Your task to perform on an android device: check out phone information Image 0: 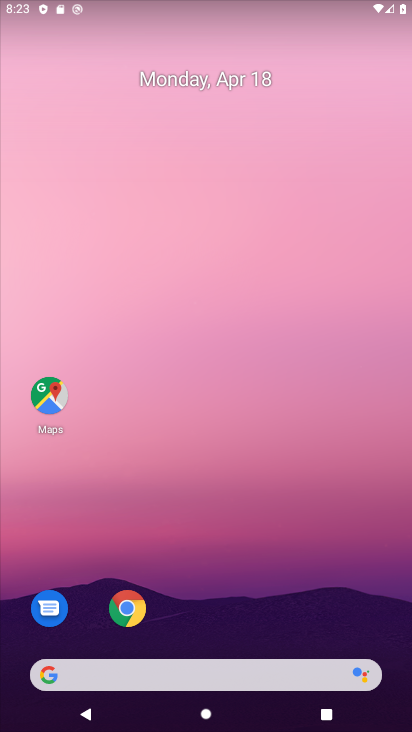
Step 0: drag from (189, 612) to (207, 189)
Your task to perform on an android device: check out phone information Image 1: 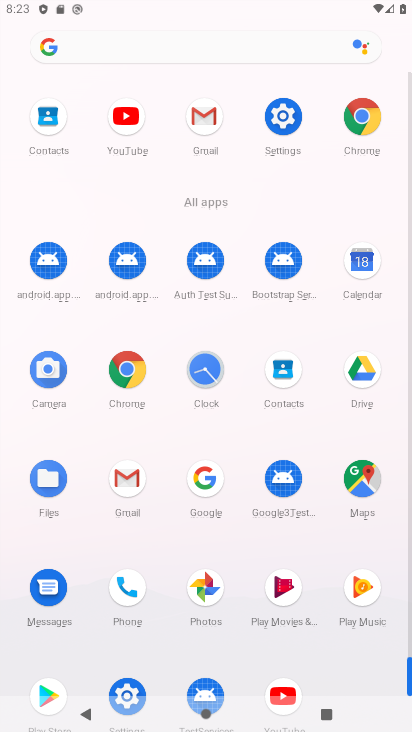
Step 1: click (281, 116)
Your task to perform on an android device: check out phone information Image 2: 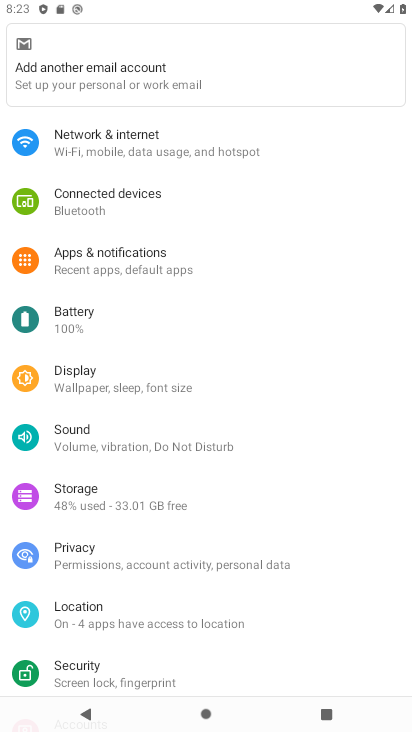
Step 2: drag from (118, 637) to (155, 506)
Your task to perform on an android device: check out phone information Image 3: 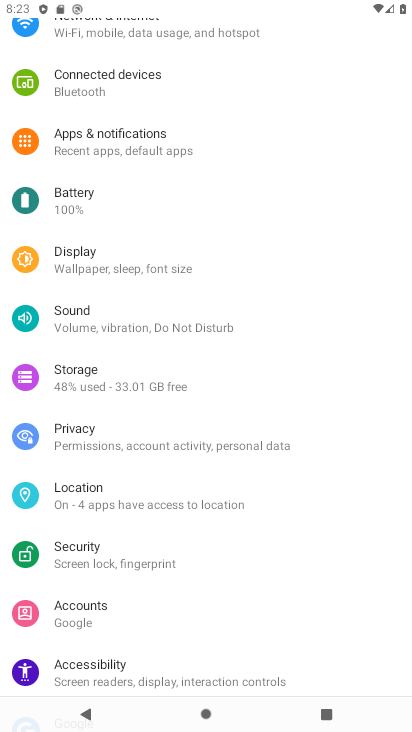
Step 3: drag from (153, 593) to (179, 492)
Your task to perform on an android device: check out phone information Image 4: 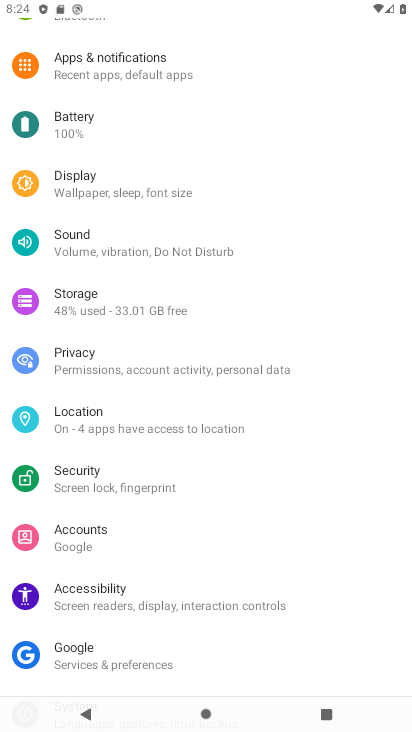
Step 4: drag from (134, 622) to (187, 519)
Your task to perform on an android device: check out phone information Image 5: 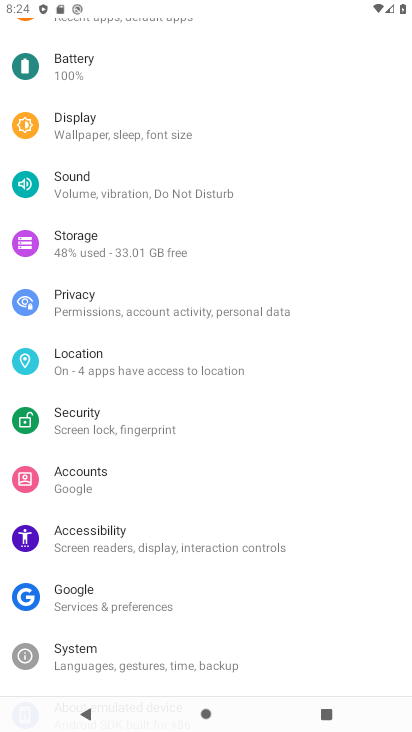
Step 5: drag from (140, 634) to (209, 540)
Your task to perform on an android device: check out phone information Image 6: 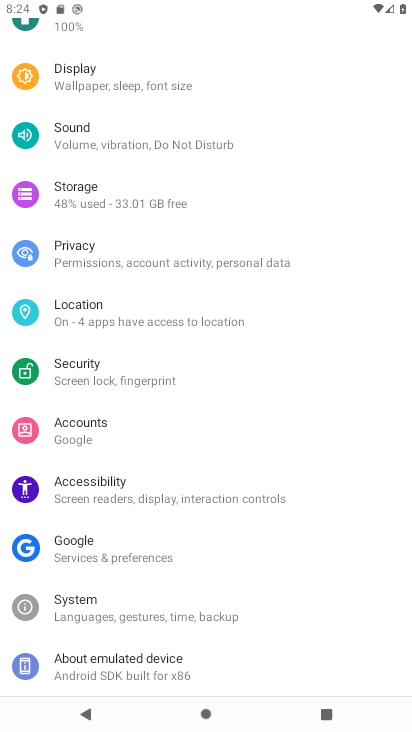
Step 6: click (135, 663)
Your task to perform on an android device: check out phone information Image 7: 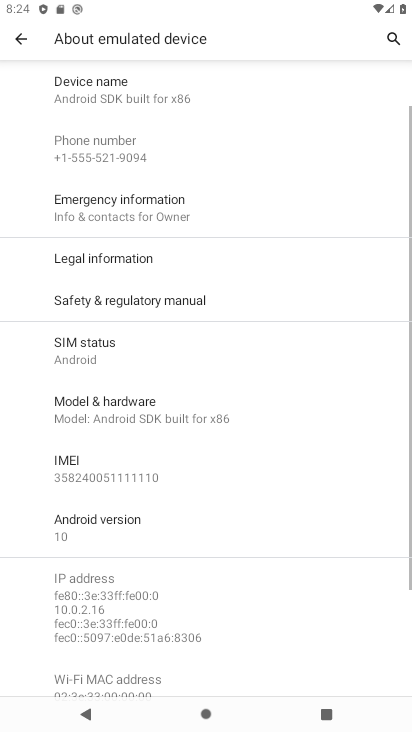
Step 7: task complete